Your task to perform on an android device: open sync settings in chrome Image 0: 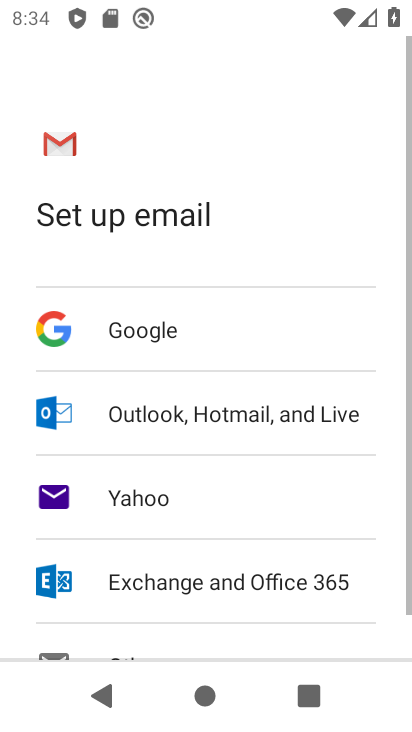
Step 0: press back button
Your task to perform on an android device: open sync settings in chrome Image 1: 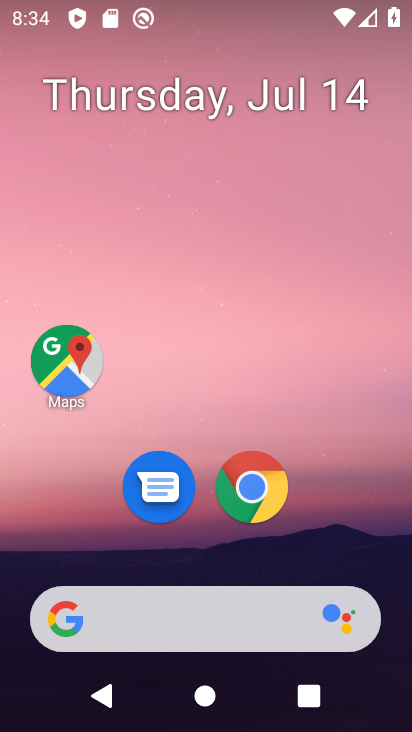
Step 1: click (260, 487)
Your task to perform on an android device: open sync settings in chrome Image 2: 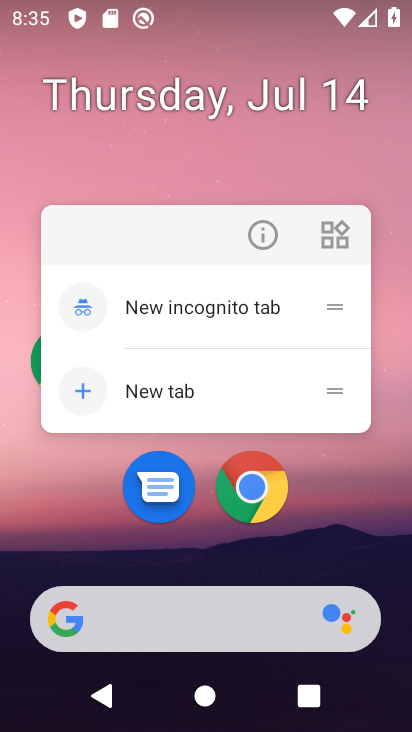
Step 2: click (261, 492)
Your task to perform on an android device: open sync settings in chrome Image 3: 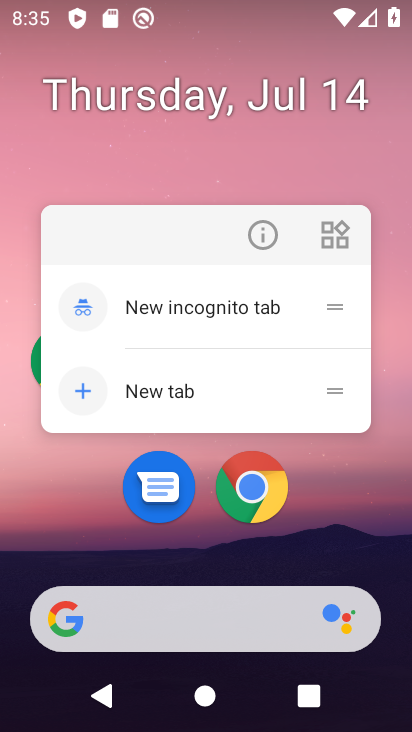
Step 3: click (239, 475)
Your task to perform on an android device: open sync settings in chrome Image 4: 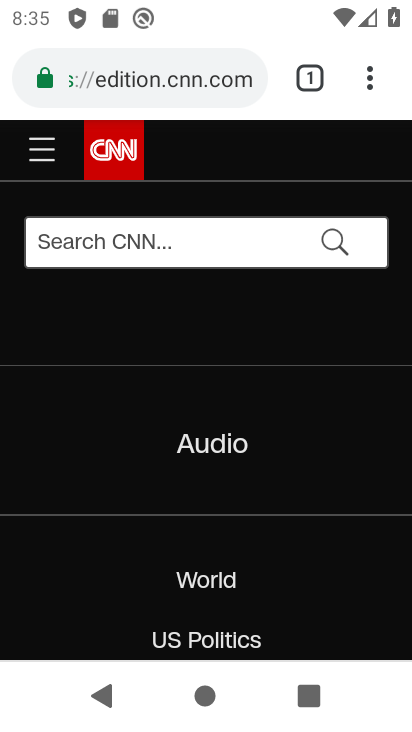
Step 4: drag from (372, 69) to (101, 558)
Your task to perform on an android device: open sync settings in chrome Image 5: 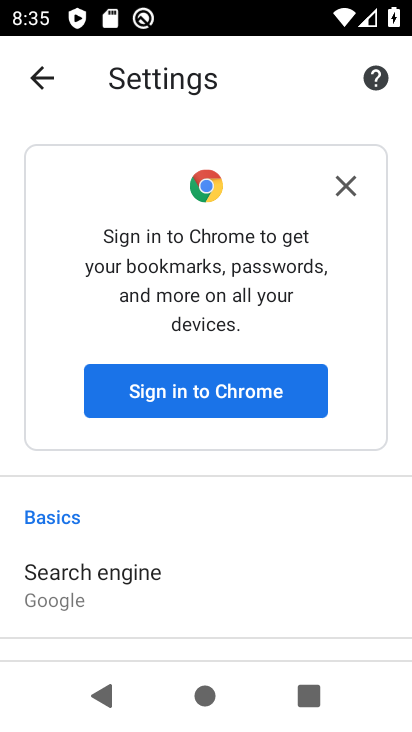
Step 5: drag from (151, 607) to (277, 63)
Your task to perform on an android device: open sync settings in chrome Image 6: 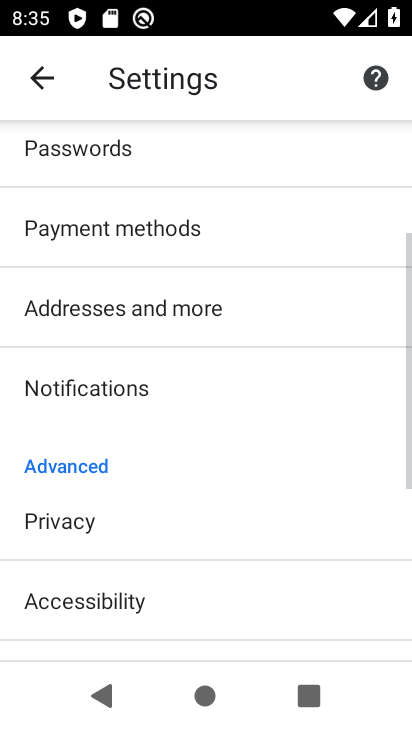
Step 6: drag from (164, 626) to (237, 82)
Your task to perform on an android device: open sync settings in chrome Image 7: 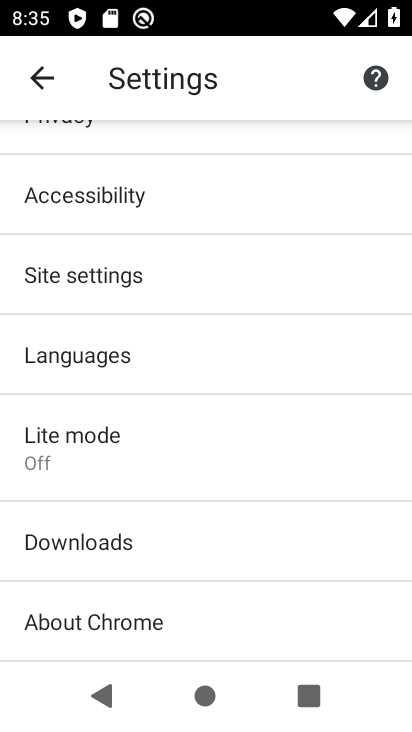
Step 7: click (41, 285)
Your task to perform on an android device: open sync settings in chrome Image 8: 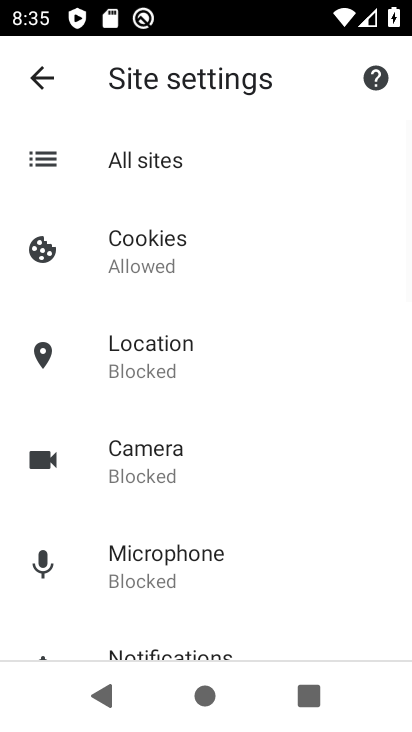
Step 8: drag from (204, 623) to (278, 99)
Your task to perform on an android device: open sync settings in chrome Image 9: 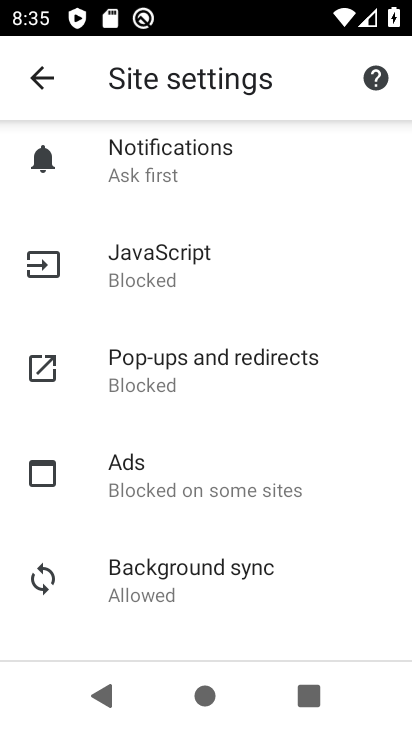
Step 9: click (174, 576)
Your task to perform on an android device: open sync settings in chrome Image 10: 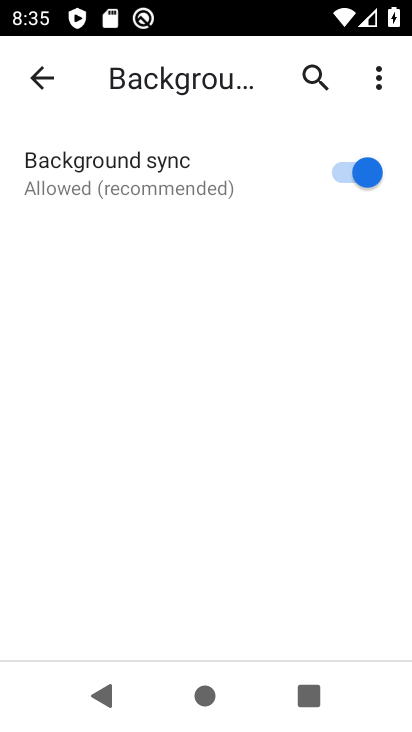
Step 10: task complete